Your task to perform on an android device: Search for vegetarian restaurants on Maps Image 0: 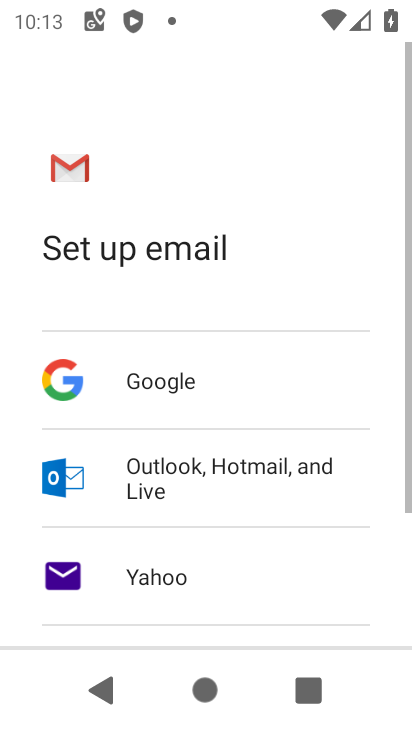
Step 0: press home button
Your task to perform on an android device: Search for vegetarian restaurants on Maps Image 1: 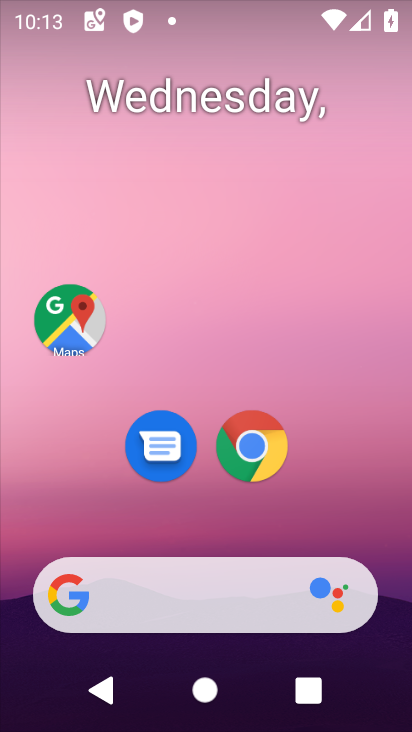
Step 1: click (38, 324)
Your task to perform on an android device: Search for vegetarian restaurants on Maps Image 2: 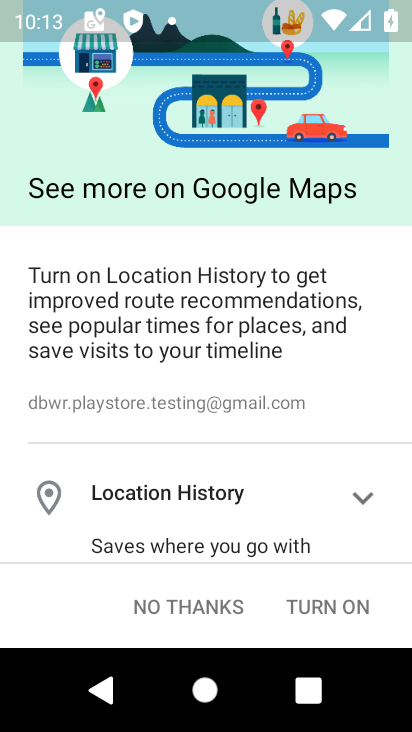
Step 2: click (215, 606)
Your task to perform on an android device: Search for vegetarian restaurants on Maps Image 3: 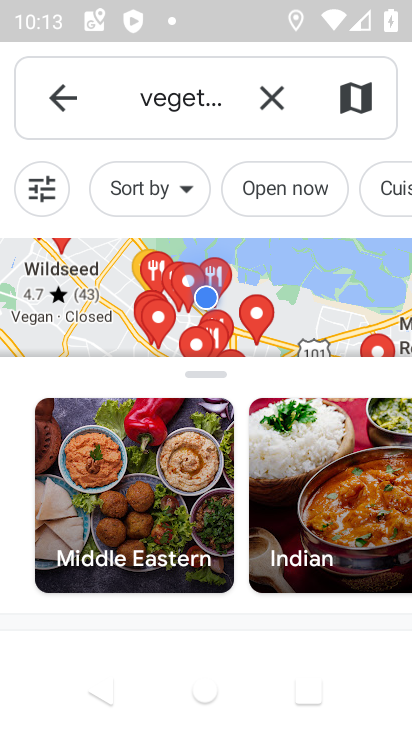
Step 3: task complete